Your task to perform on an android device: Show me popular games on the Play Store Image 0: 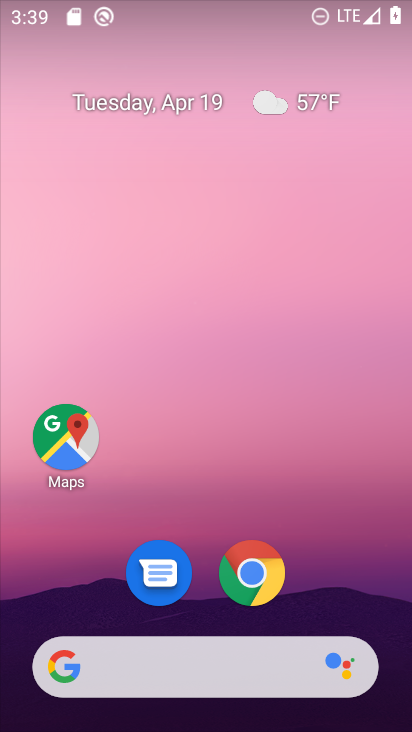
Step 0: drag from (380, 627) to (376, 1)
Your task to perform on an android device: Show me popular games on the Play Store Image 1: 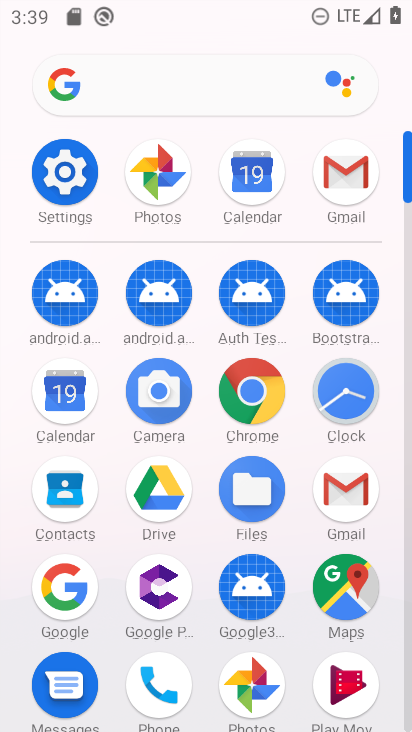
Step 1: drag from (407, 667) to (407, 617)
Your task to perform on an android device: Show me popular games on the Play Store Image 2: 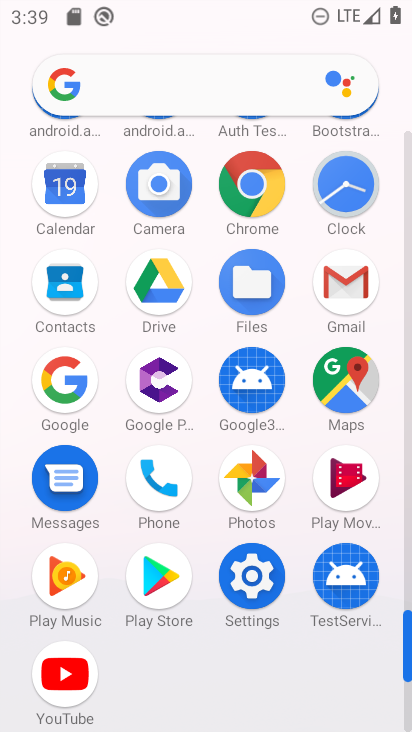
Step 2: click (158, 586)
Your task to perform on an android device: Show me popular games on the Play Store Image 3: 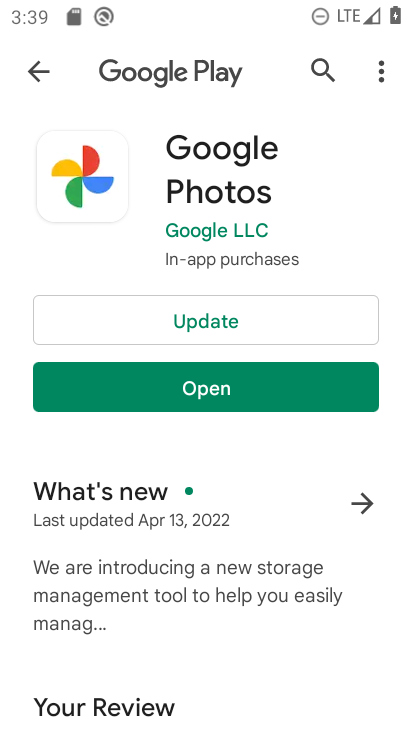
Step 3: click (39, 72)
Your task to perform on an android device: Show me popular games on the Play Store Image 4: 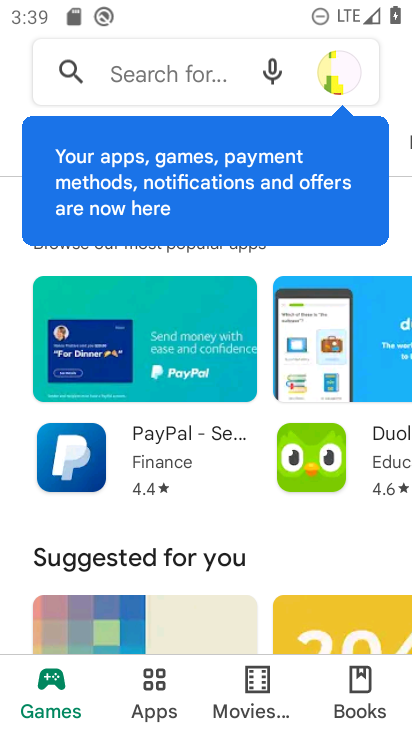
Step 4: click (41, 703)
Your task to perform on an android device: Show me popular games on the Play Store Image 5: 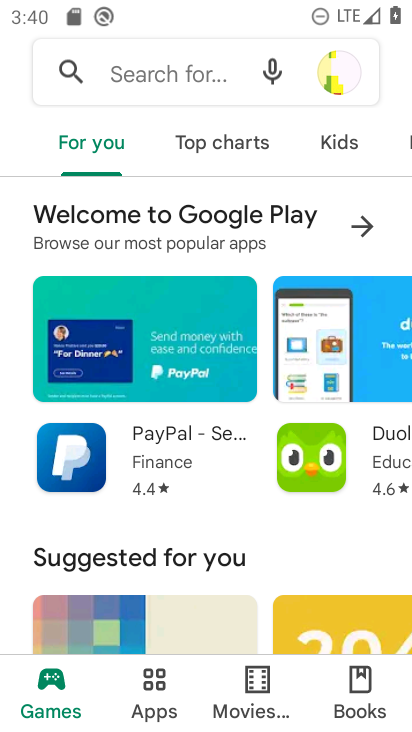
Step 5: drag from (204, 498) to (205, 259)
Your task to perform on an android device: Show me popular games on the Play Store Image 6: 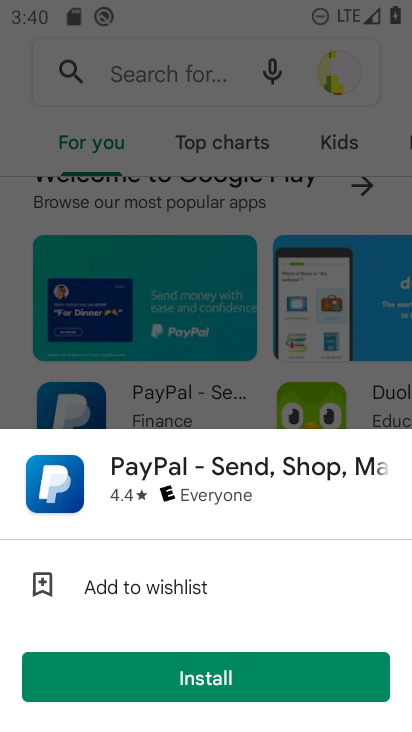
Step 6: drag from (249, 386) to (236, 159)
Your task to perform on an android device: Show me popular games on the Play Store Image 7: 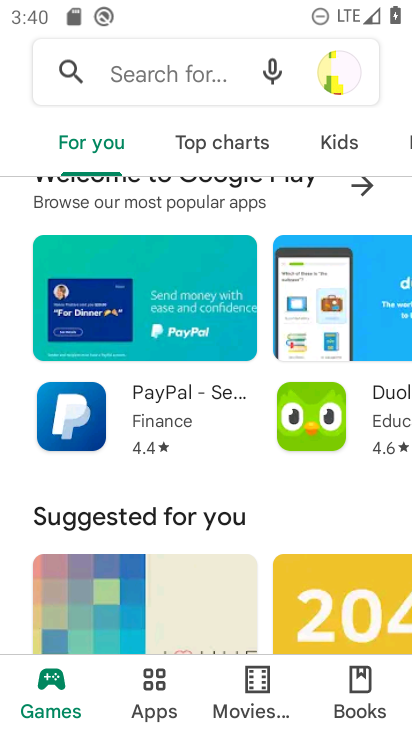
Step 7: drag from (228, 525) to (224, 272)
Your task to perform on an android device: Show me popular games on the Play Store Image 8: 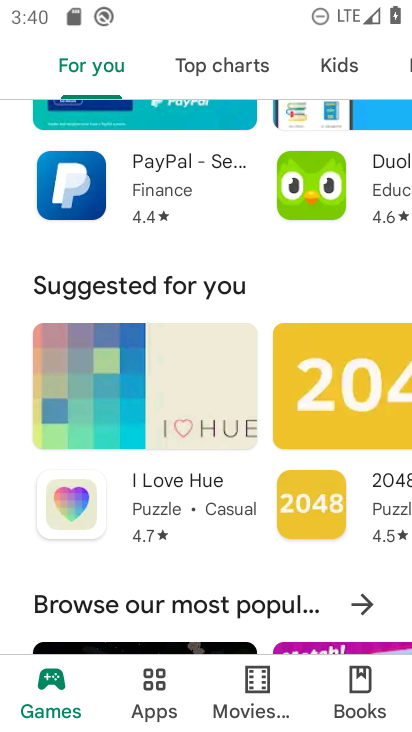
Step 8: drag from (232, 542) to (219, 296)
Your task to perform on an android device: Show me popular games on the Play Store Image 9: 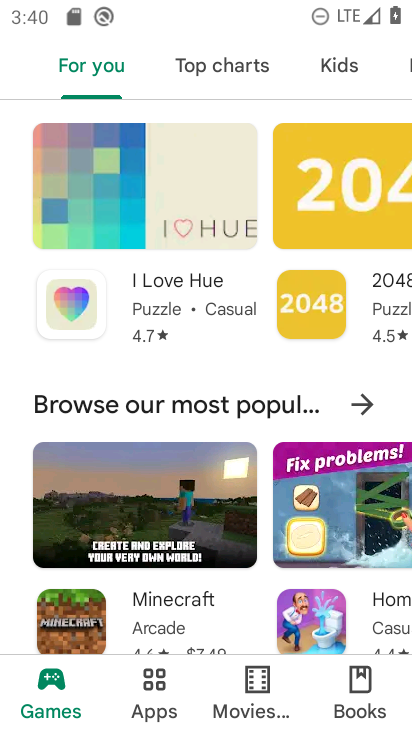
Step 9: drag from (227, 526) to (230, 360)
Your task to perform on an android device: Show me popular games on the Play Store Image 10: 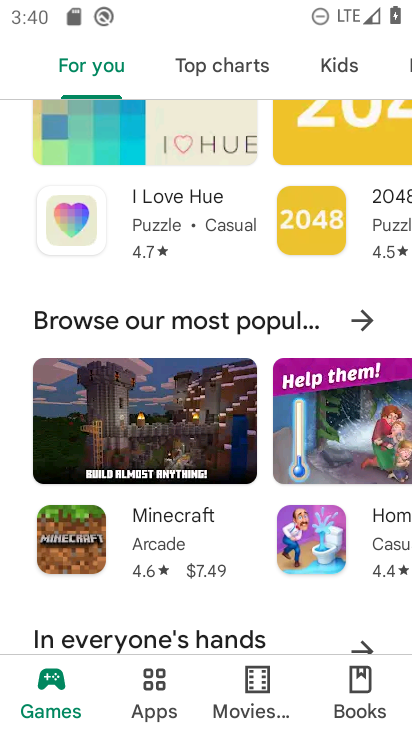
Step 10: click (253, 324)
Your task to perform on an android device: Show me popular games on the Play Store Image 11: 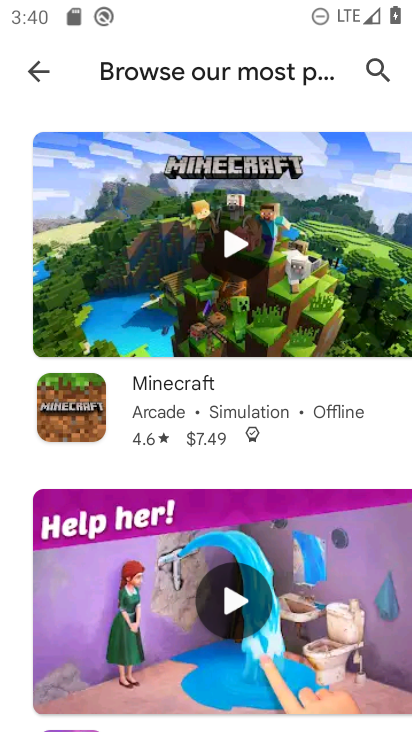
Step 11: task complete